Your task to perform on an android device: Open calendar and show me the second week of next month Image 0: 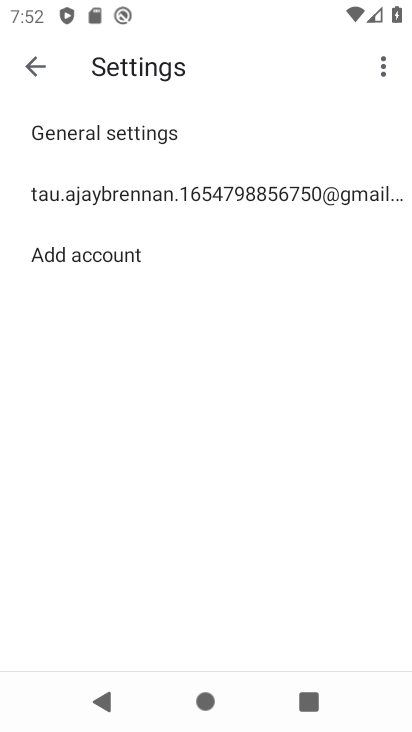
Step 0: press home button
Your task to perform on an android device: Open calendar and show me the second week of next month Image 1: 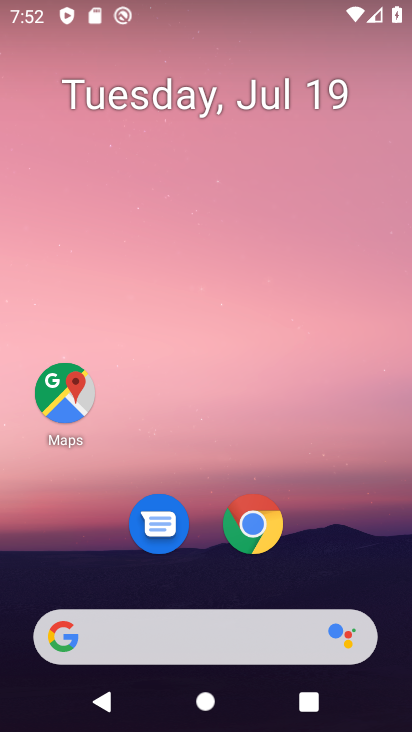
Step 1: drag from (327, 542) to (317, 27)
Your task to perform on an android device: Open calendar and show me the second week of next month Image 2: 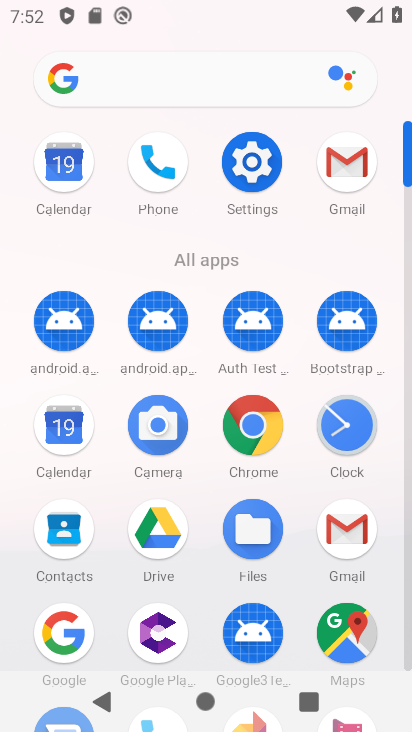
Step 2: click (66, 173)
Your task to perform on an android device: Open calendar and show me the second week of next month Image 3: 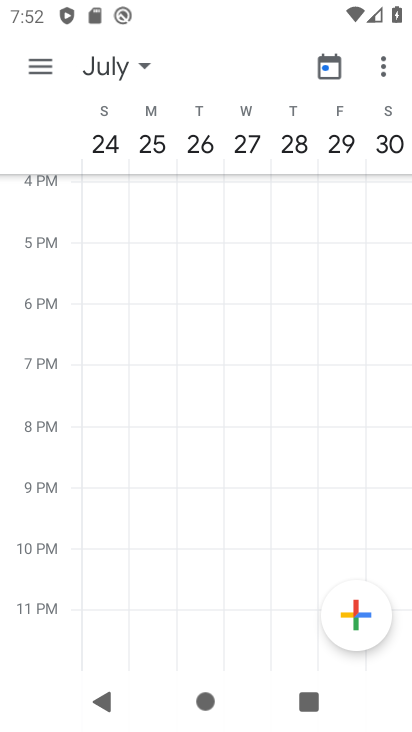
Step 3: task complete